Your task to perform on an android device: Empty the shopping cart on walmart.com. Search for "macbook pro 15 inch" on walmart.com, select the first entry, add it to the cart, then select checkout. Image 0: 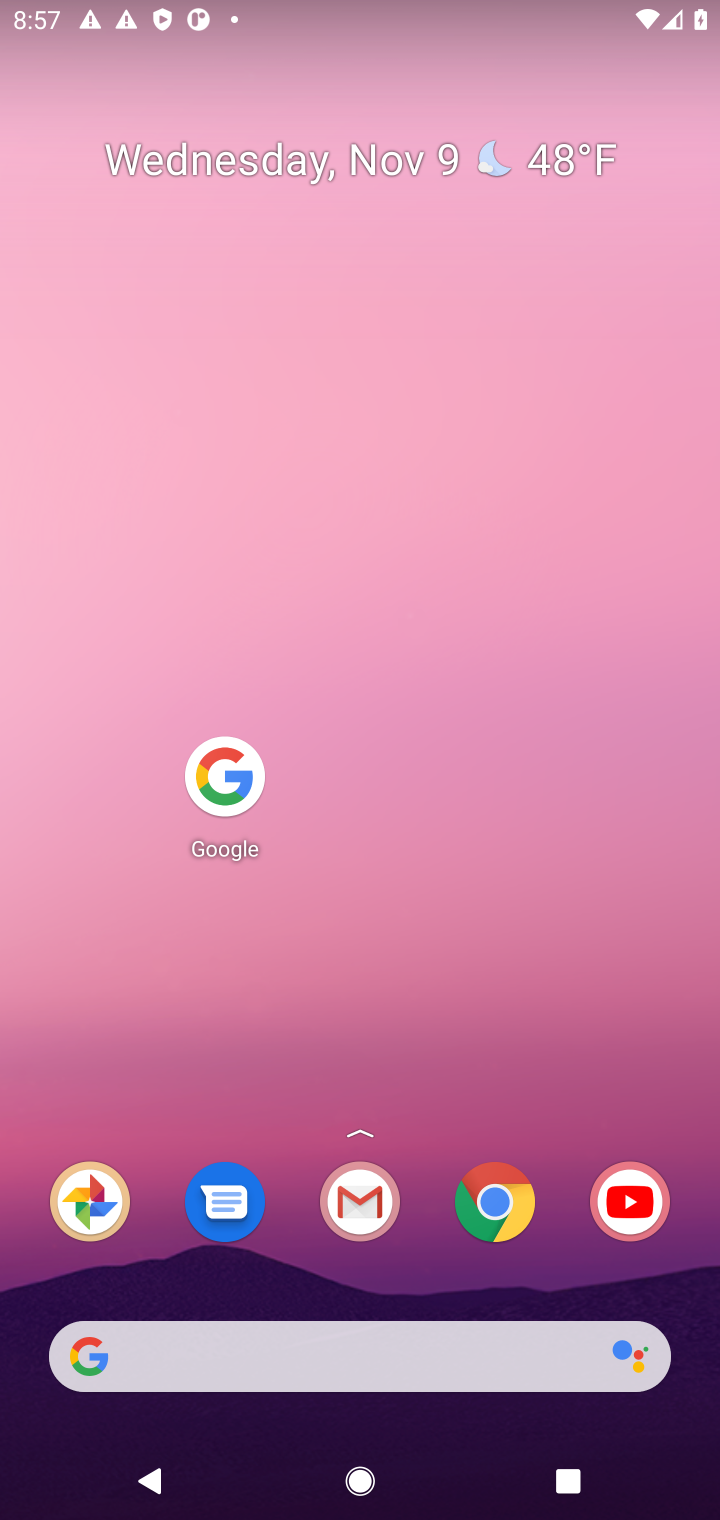
Step 0: press home button
Your task to perform on an android device: Empty the shopping cart on walmart.com. Search for "macbook pro 15 inch" on walmart.com, select the first entry, add it to the cart, then select checkout. Image 1: 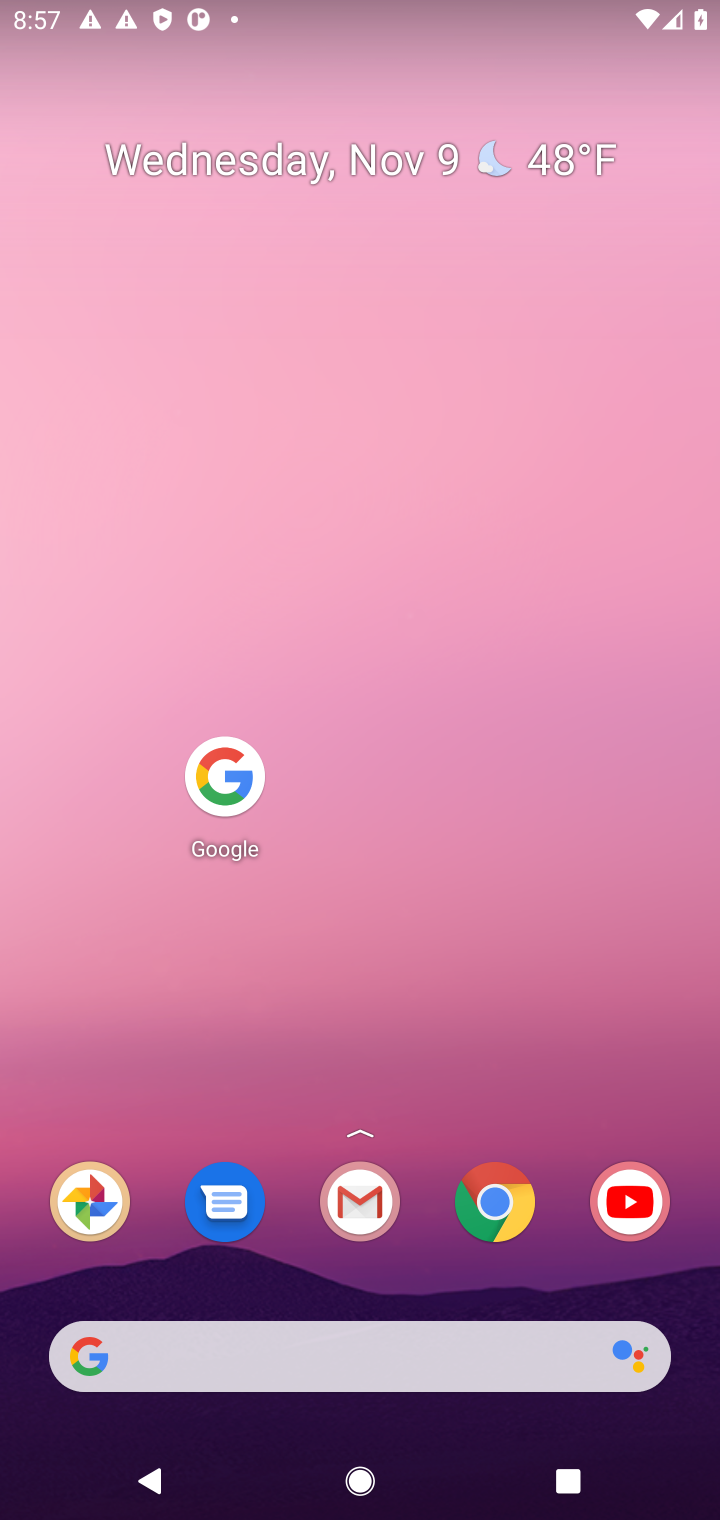
Step 1: click (225, 775)
Your task to perform on an android device: Empty the shopping cart on walmart.com. Search for "macbook pro 15 inch" on walmart.com, select the first entry, add it to the cart, then select checkout. Image 2: 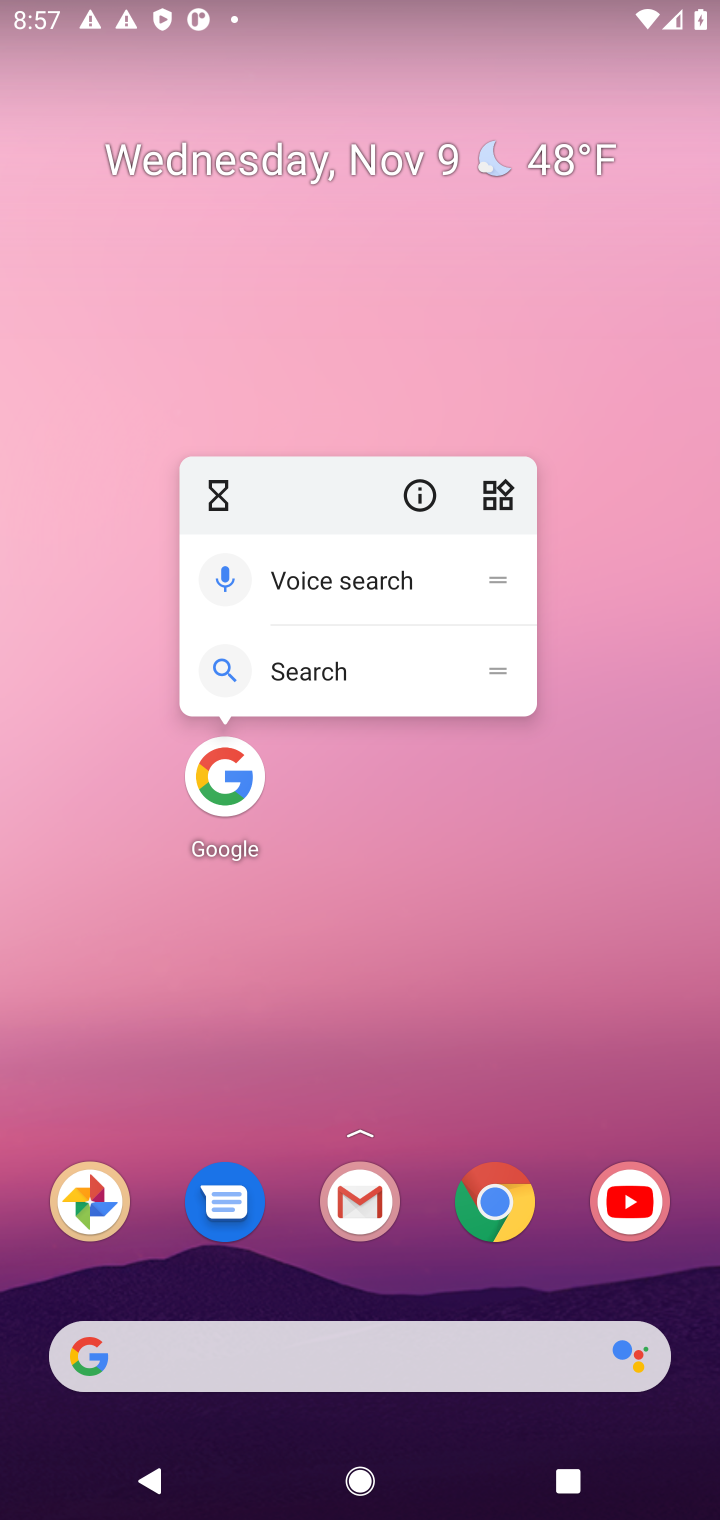
Step 2: click (229, 771)
Your task to perform on an android device: Empty the shopping cart on walmart.com. Search for "macbook pro 15 inch" on walmart.com, select the first entry, add it to the cart, then select checkout. Image 3: 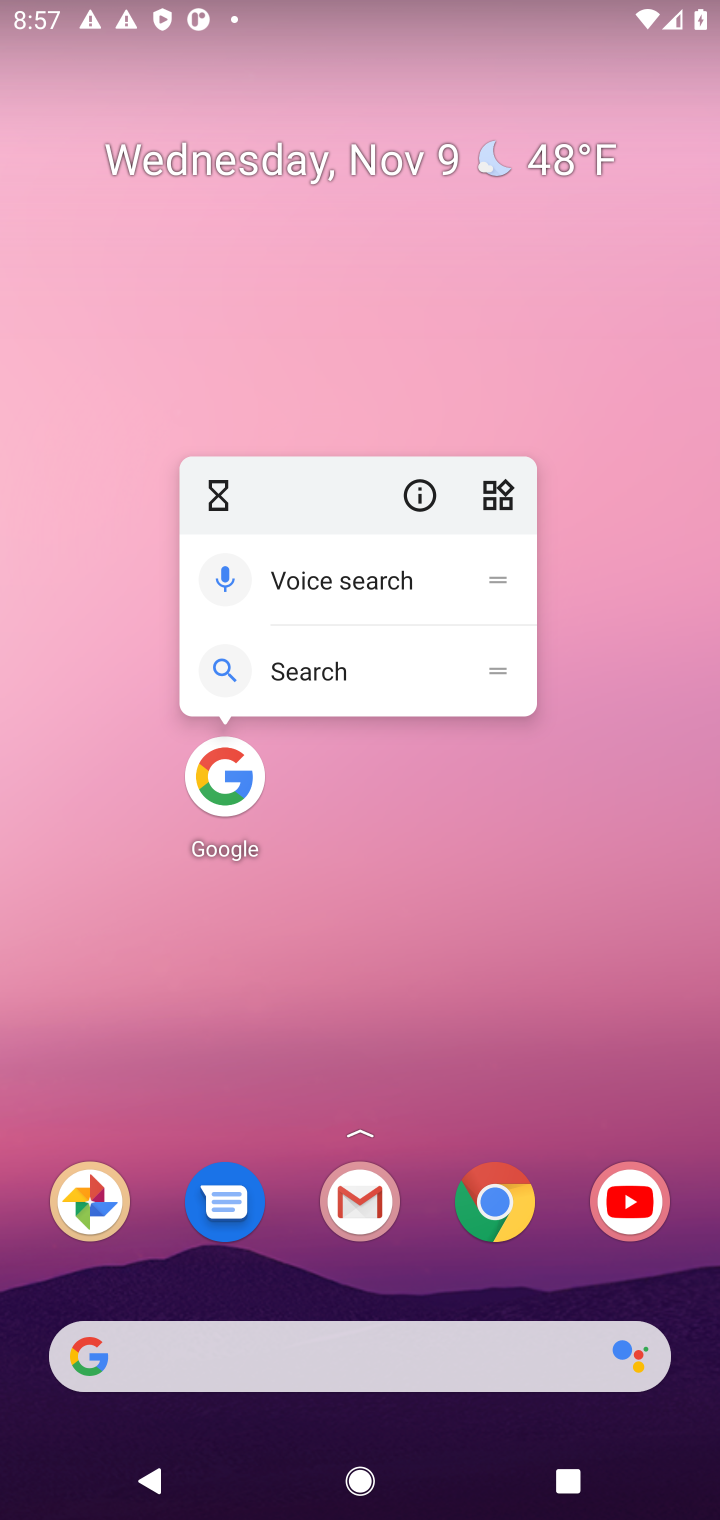
Step 3: click (229, 771)
Your task to perform on an android device: Empty the shopping cart on walmart.com. Search for "macbook pro 15 inch" on walmart.com, select the first entry, add it to the cart, then select checkout. Image 4: 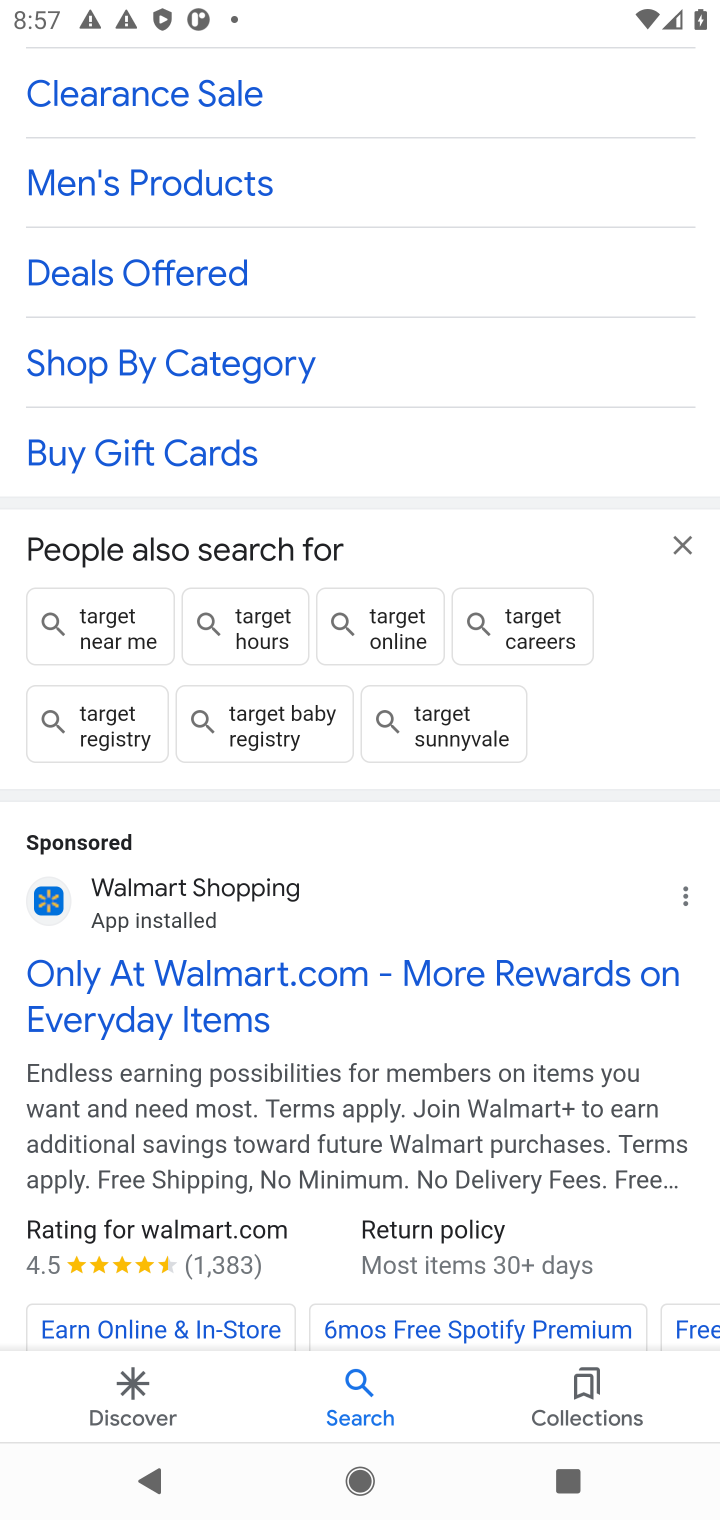
Step 4: drag from (524, 228) to (538, 1144)
Your task to perform on an android device: Empty the shopping cart on walmart.com. Search for "macbook pro 15 inch" on walmart.com, select the first entry, add it to the cart, then select checkout. Image 5: 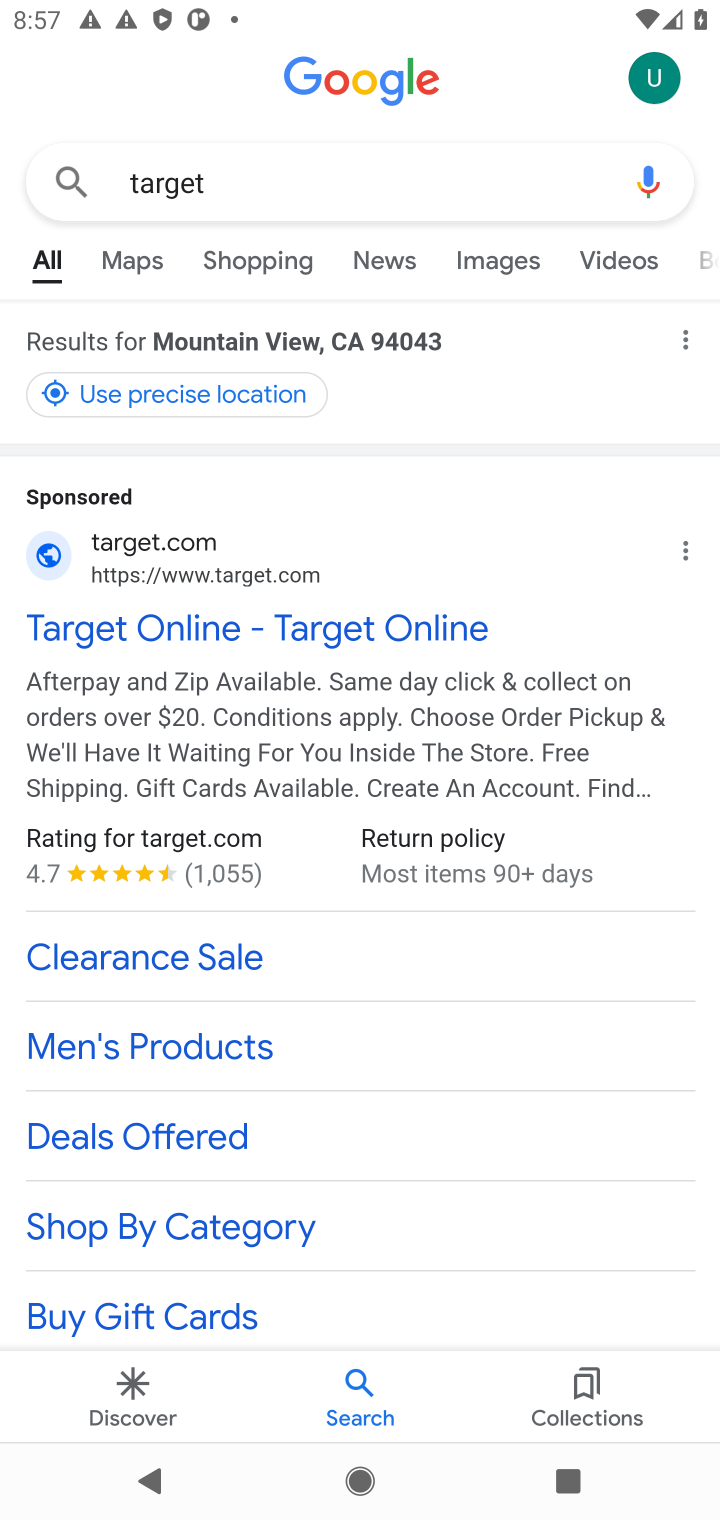
Step 5: click (306, 176)
Your task to perform on an android device: Empty the shopping cart on walmart.com. Search for "macbook pro 15 inch" on walmart.com, select the first entry, add it to the cart, then select checkout. Image 6: 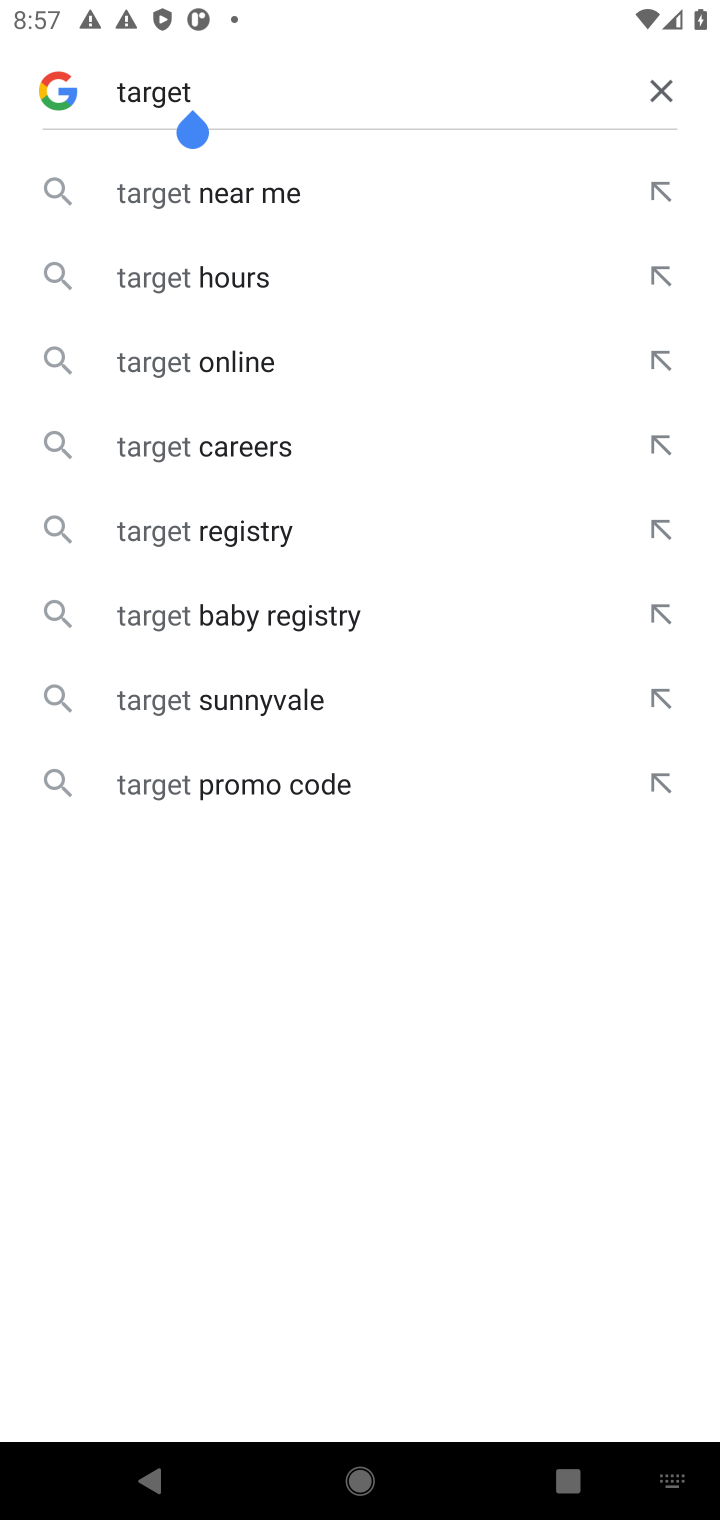
Step 6: click (666, 86)
Your task to perform on an android device: Empty the shopping cart on walmart.com. Search for "macbook pro 15 inch" on walmart.com, select the first entry, add it to the cart, then select checkout. Image 7: 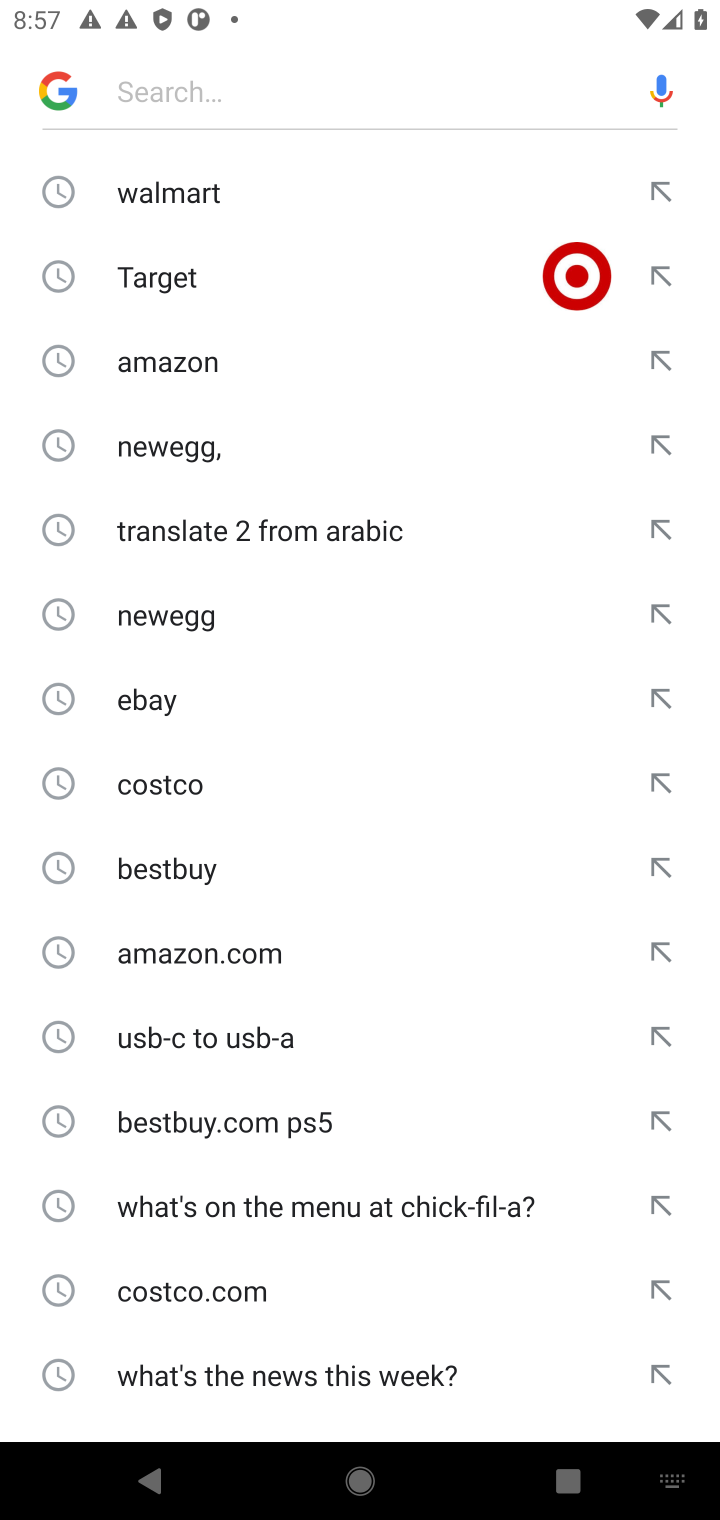
Step 7: click (142, 183)
Your task to perform on an android device: Empty the shopping cart on walmart.com. Search for "macbook pro 15 inch" on walmart.com, select the first entry, add it to the cart, then select checkout. Image 8: 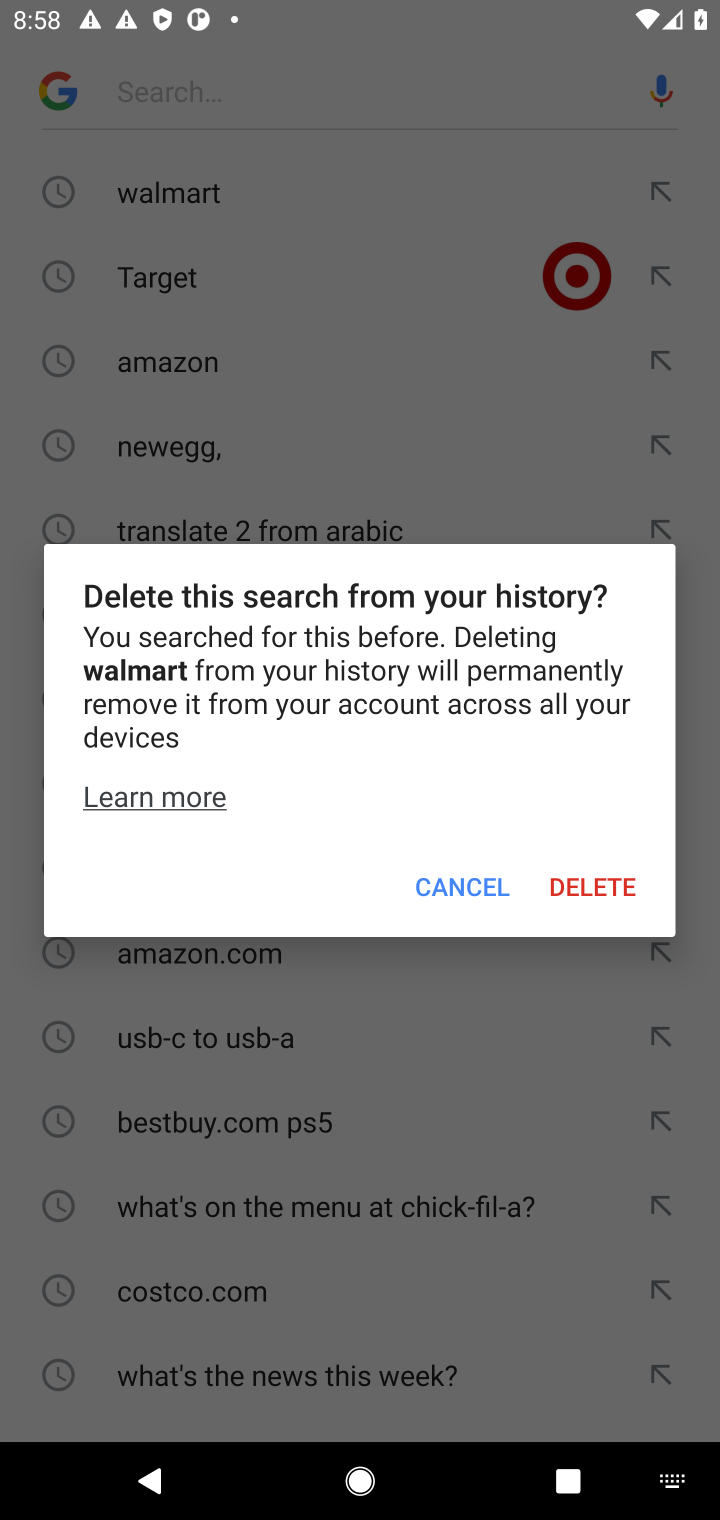
Step 8: click (443, 884)
Your task to perform on an android device: Empty the shopping cart on walmart.com. Search for "macbook pro 15 inch" on walmart.com, select the first entry, add it to the cart, then select checkout. Image 9: 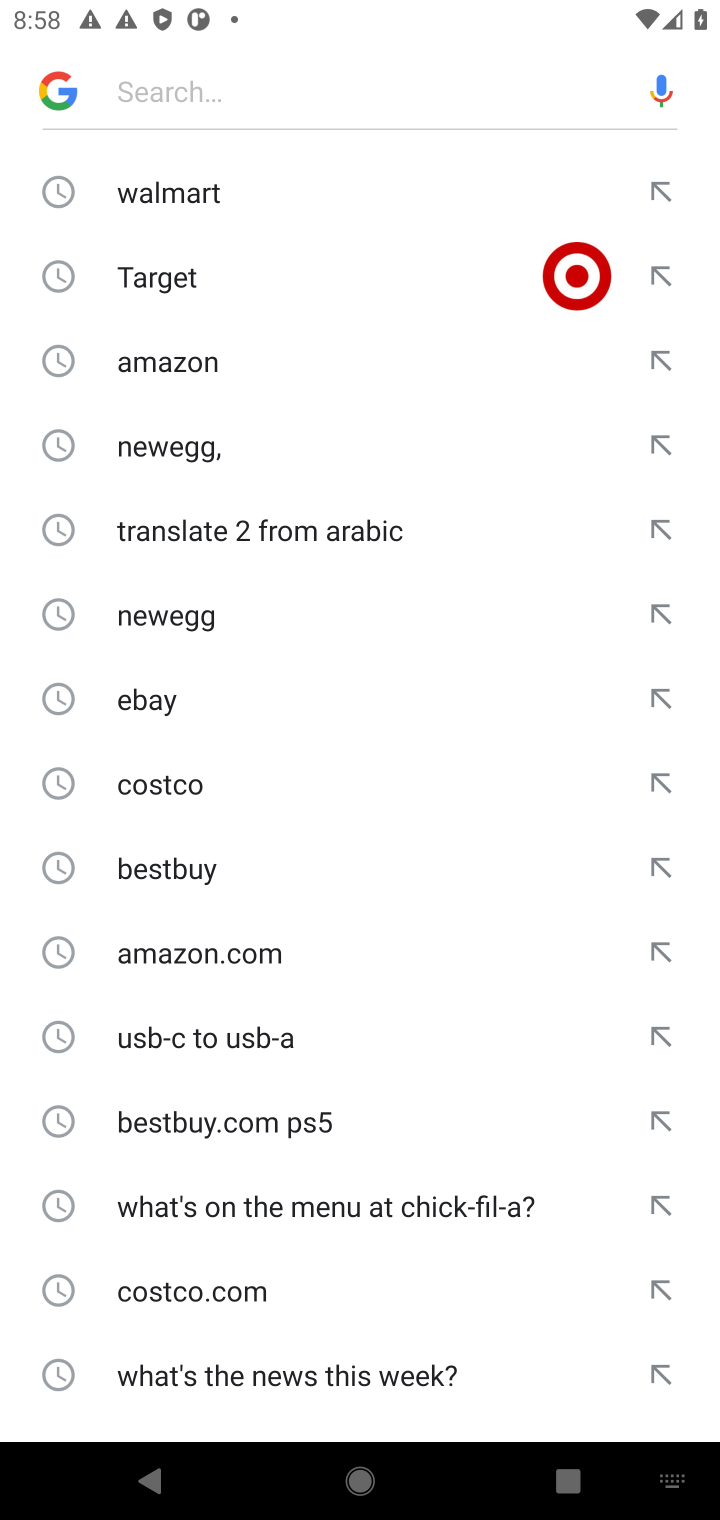
Step 9: click (126, 198)
Your task to perform on an android device: Empty the shopping cart on walmart.com. Search for "macbook pro 15 inch" on walmart.com, select the first entry, add it to the cart, then select checkout. Image 10: 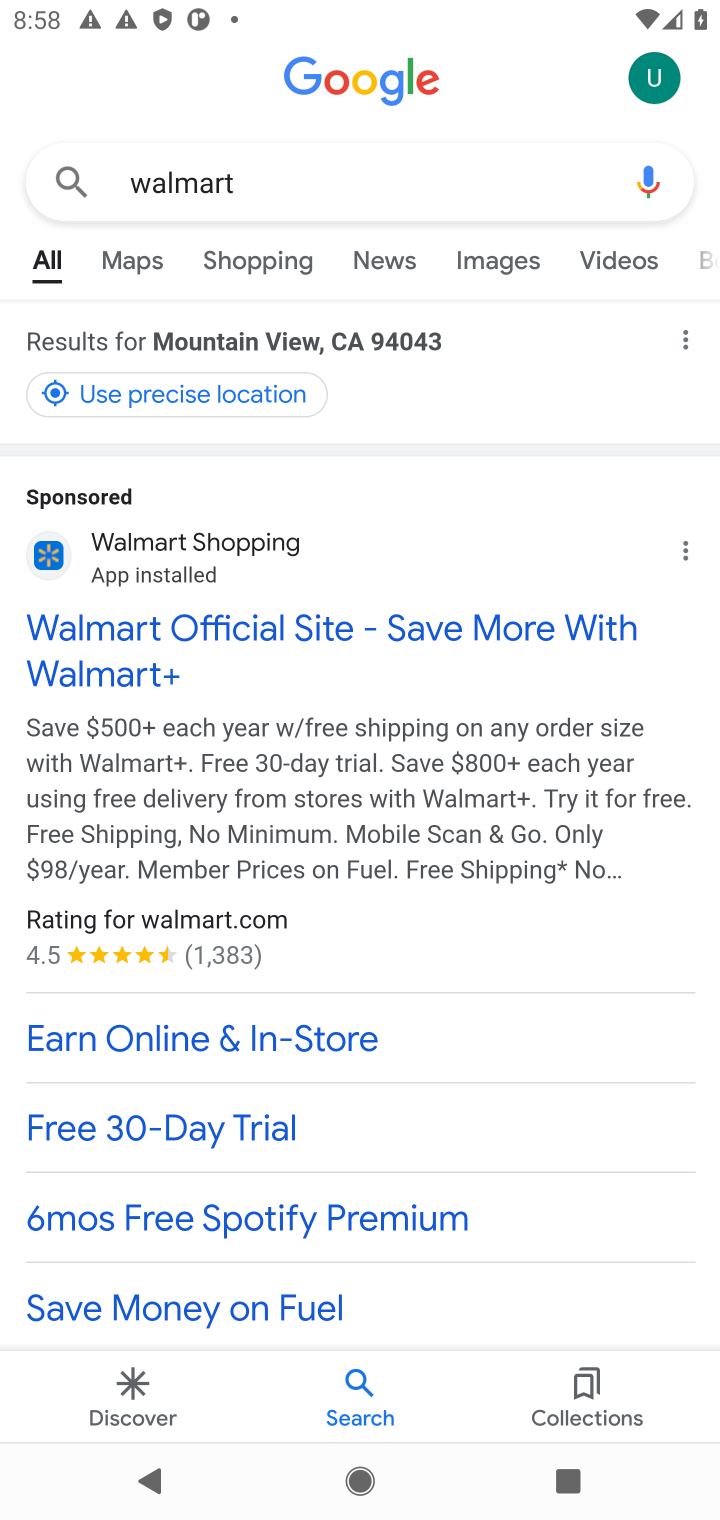
Step 10: drag from (247, 1056) to (628, 266)
Your task to perform on an android device: Empty the shopping cart on walmart.com. Search for "macbook pro 15 inch" on walmart.com, select the first entry, add it to the cart, then select checkout. Image 11: 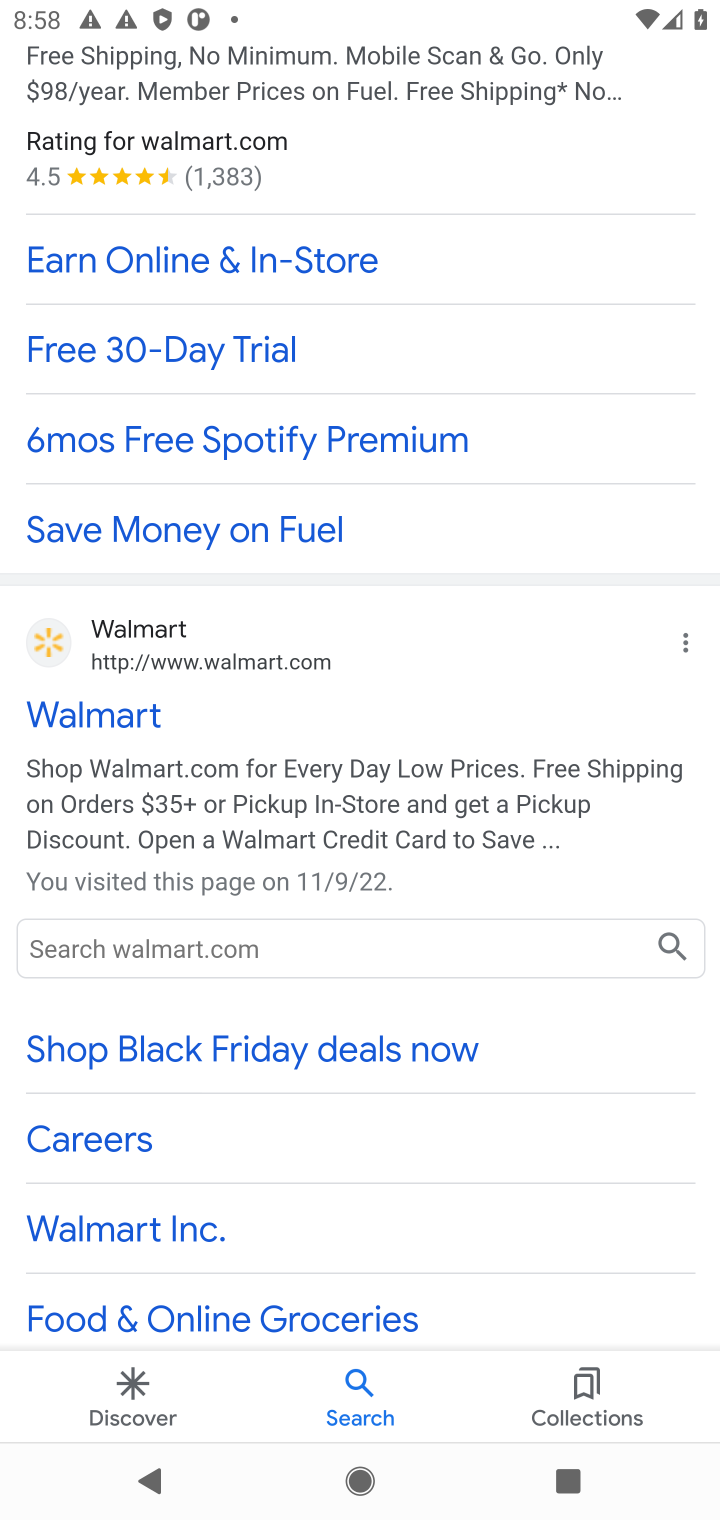
Step 11: click (89, 786)
Your task to perform on an android device: Empty the shopping cart on walmart.com. Search for "macbook pro 15 inch" on walmart.com, select the first entry, add it to the cart, then select checkout. Image 12: 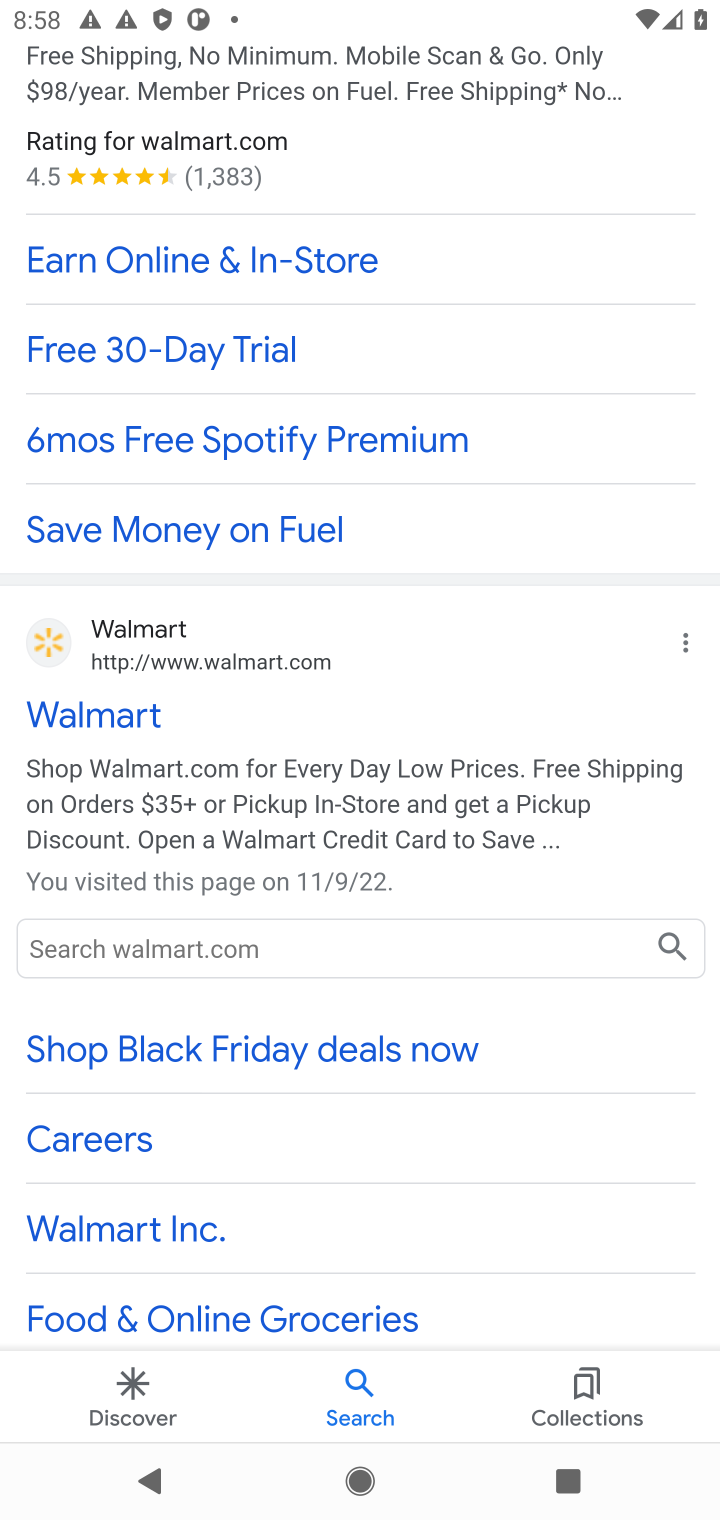
Step 12: click (87, 712)
Your task to perform on an android device: Empty the shopping cart on walmart.com. Search for "macbook pro 15 inch" on walmart.com, select the first entry, add it to the cart, then select checkout. Image 13: 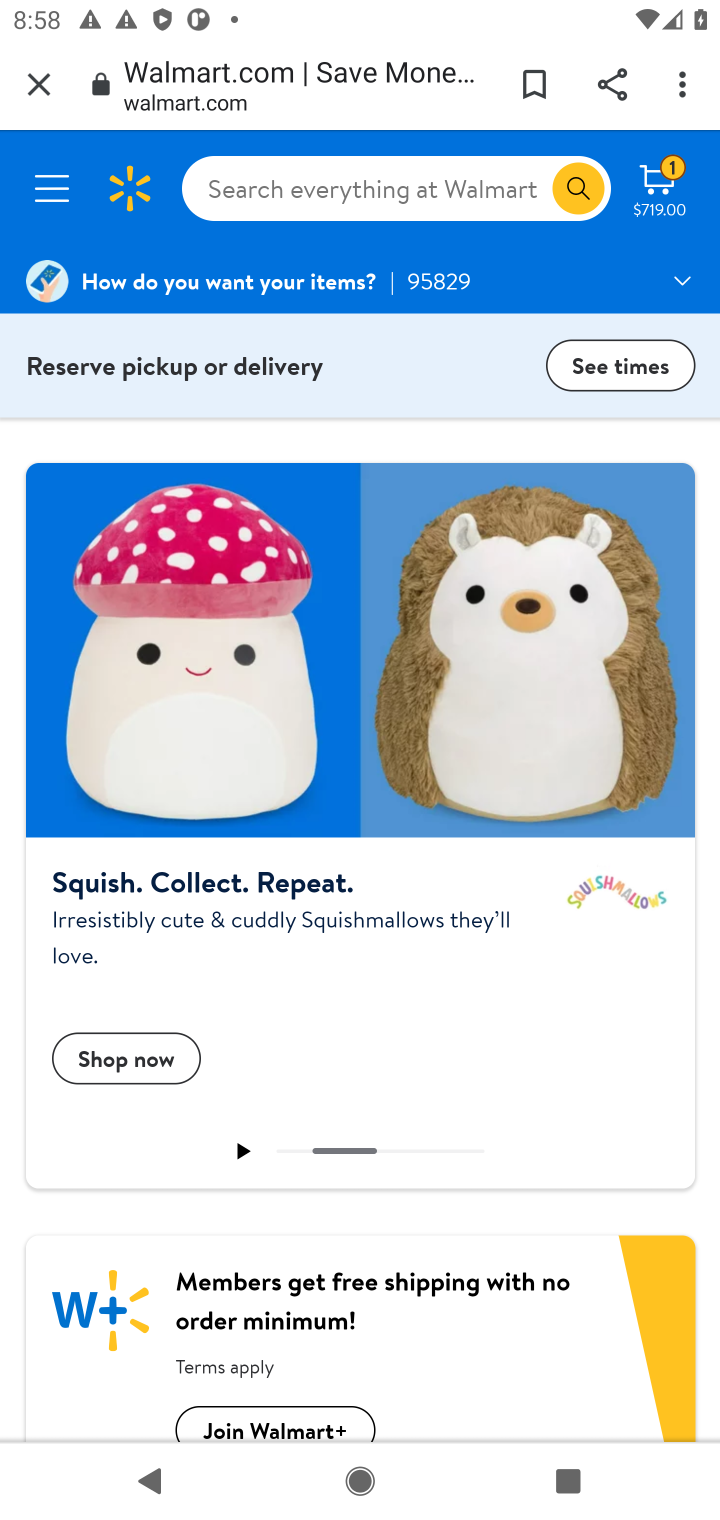
Step 13: click (419, 191)
Your task to perform on an android device: Empty the shopping cart on walmart.com. Search for "macbook pro 15 inch" on walmart.com, select the first entry, add it to the cart, then select checkout. Image 14: 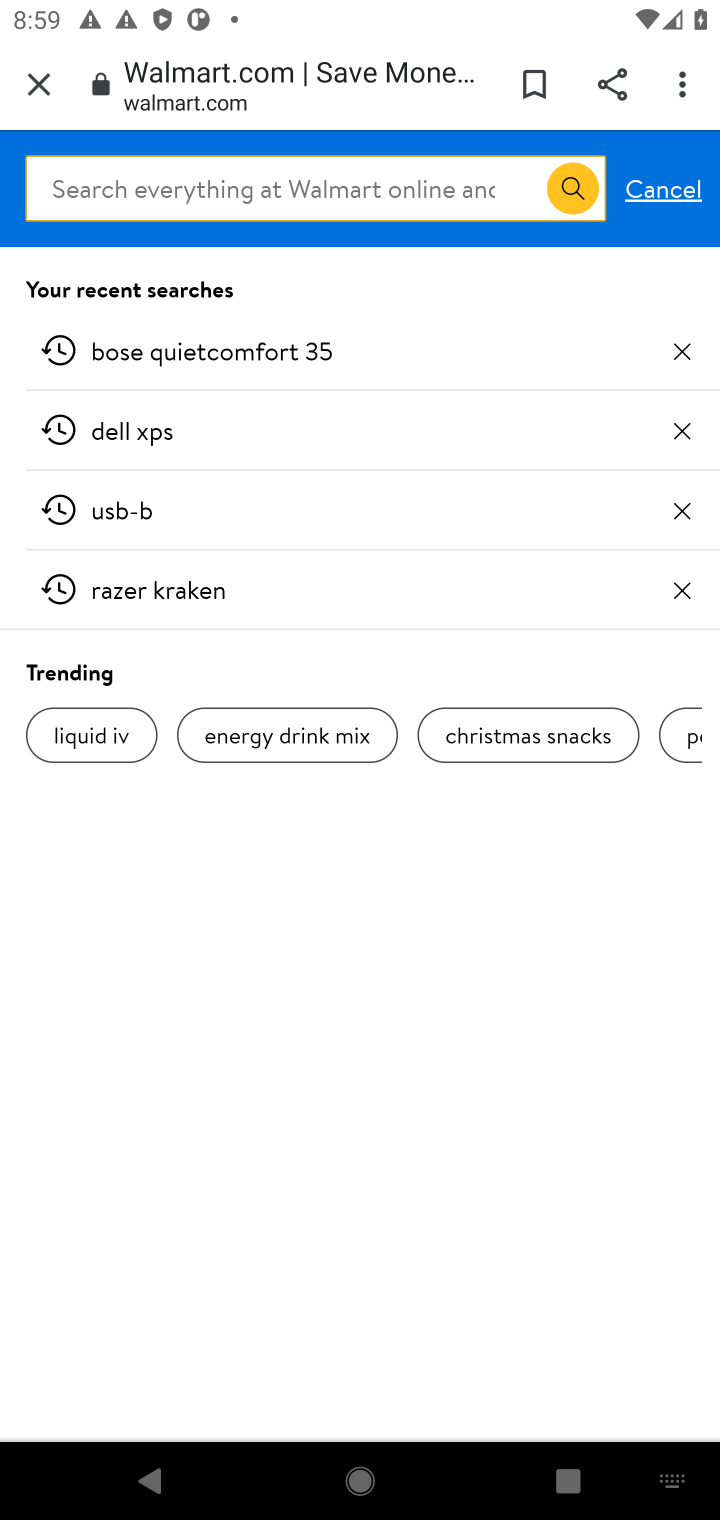
Step 14: type "macbook pro 15 inch"
Your task to perform on an android device: Empty the shopping cart on walmart.com. Search for "macbook pro 15 inch" on walmart.com, select the first entry, add it to the cart, then select checkout. Image 15: 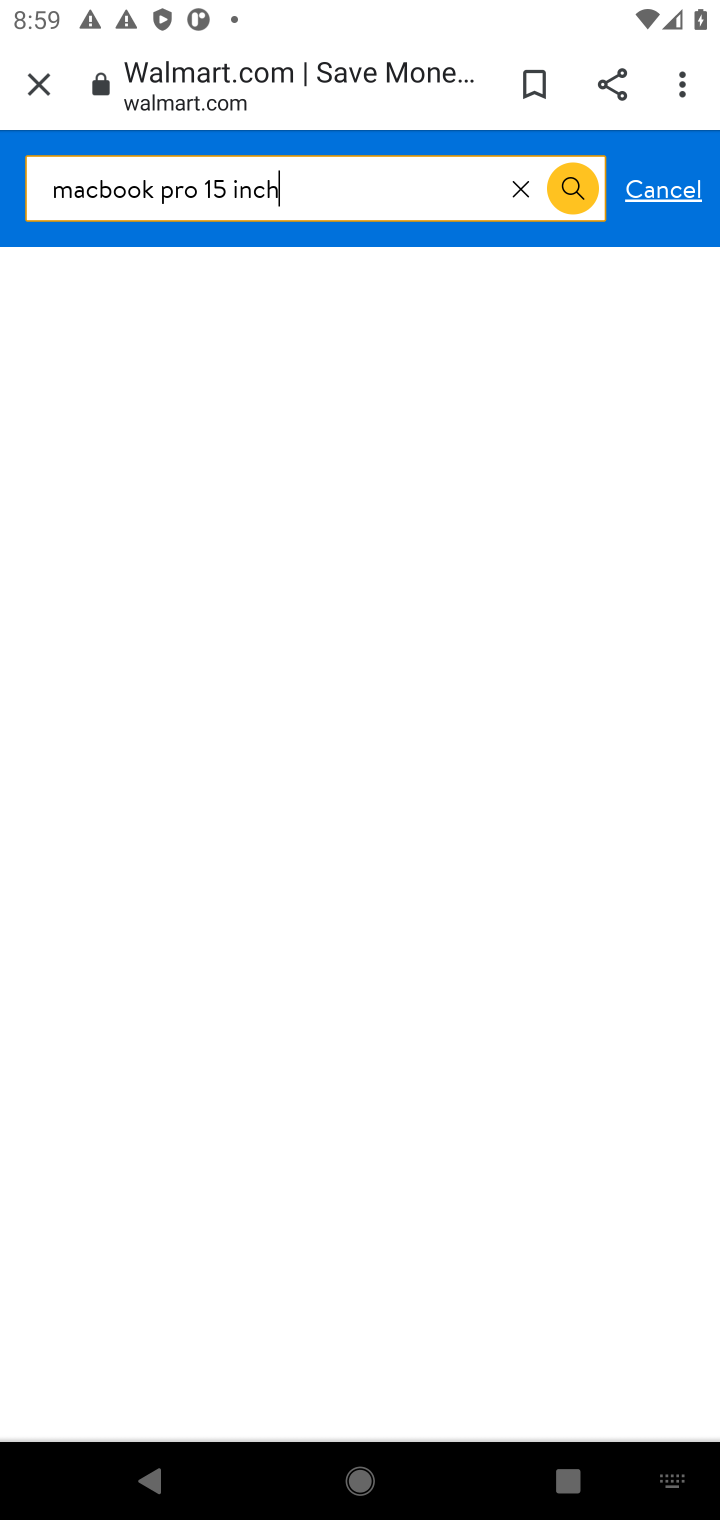
Step 15: press enter
Your task to perform on an android device: Empty the shopping cart on walmart.com. Search for "macbook pro 15 inch" on walmart.com, select the first entry, add it to the cart, then select checkout. Image 16: 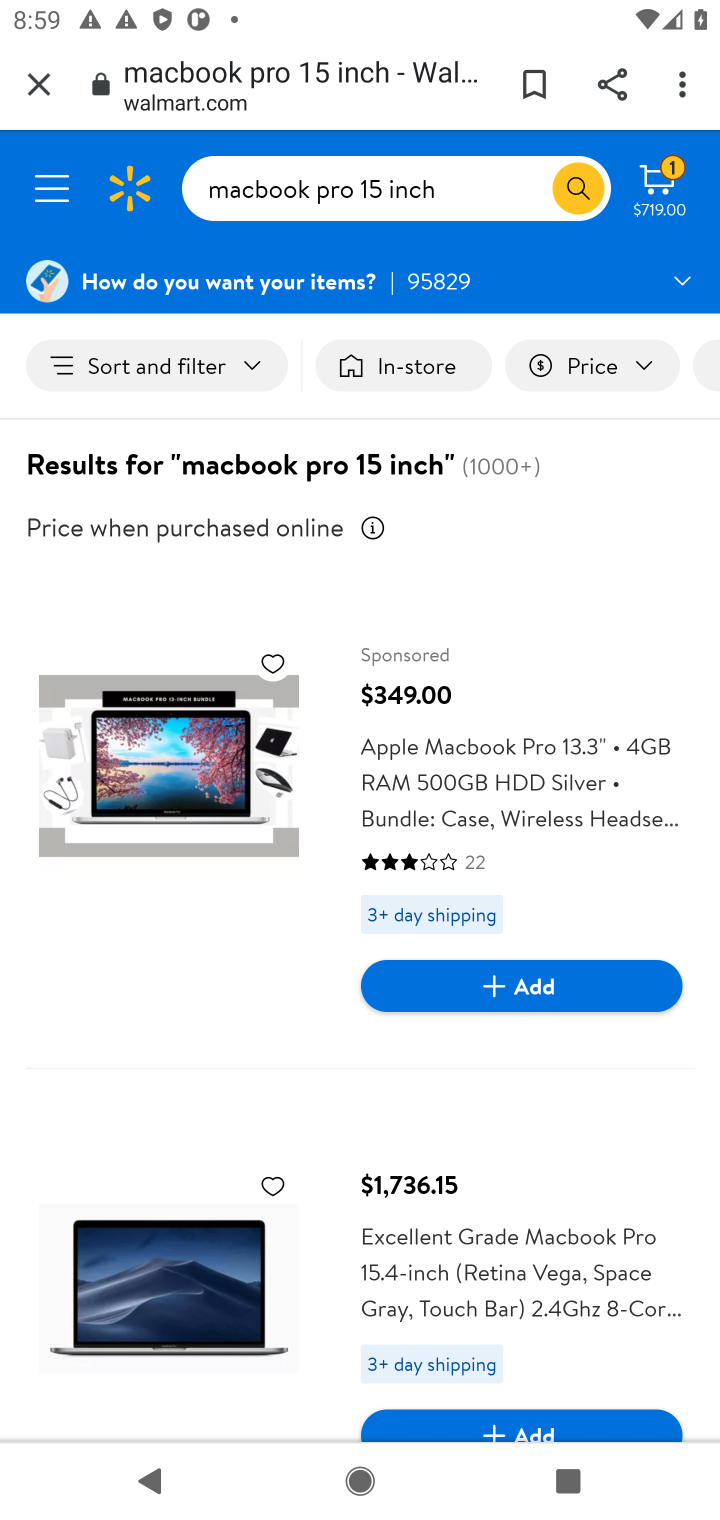
Step 16: task complete